Your task to perform on an android device: install app "Microsoft Excel" Image 0: 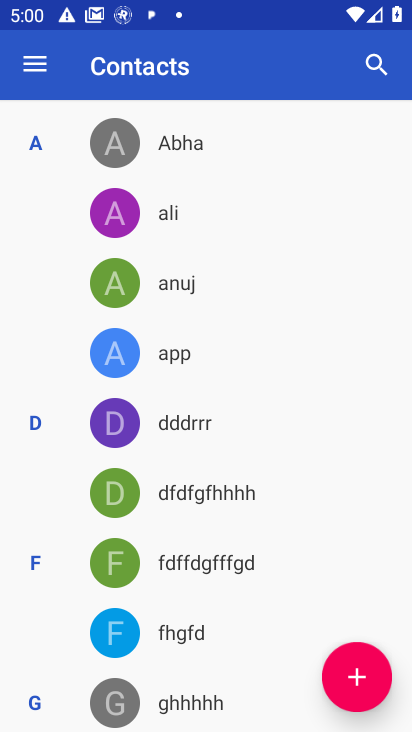
Step 0: press home button
Your task to perform on an android device: install app "Microsoft Excel" Image 1: 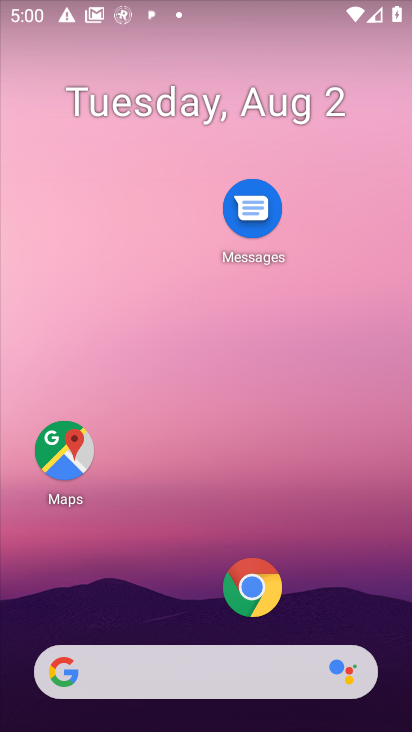
Step 1: drag from (168, 570) to (175, 199)
Your task to perform on an android device: install app "Microsoft Excel" Image 2: 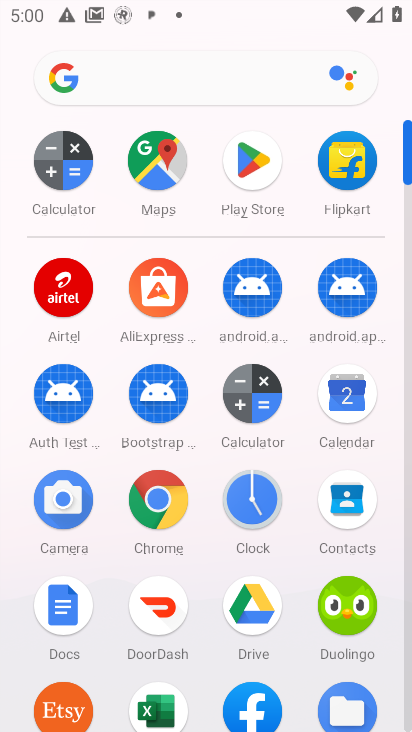
Step 2: click (243, 168)
Your task to perform on an android device: install app "Microsoft Excel" Image 3: 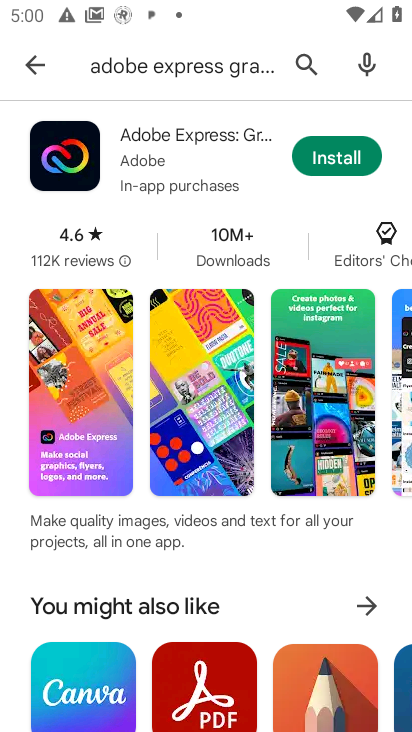
Step 3: click (308, 60)
Your task to perform on an android device: install app "Microsoft Excel" Image 4: 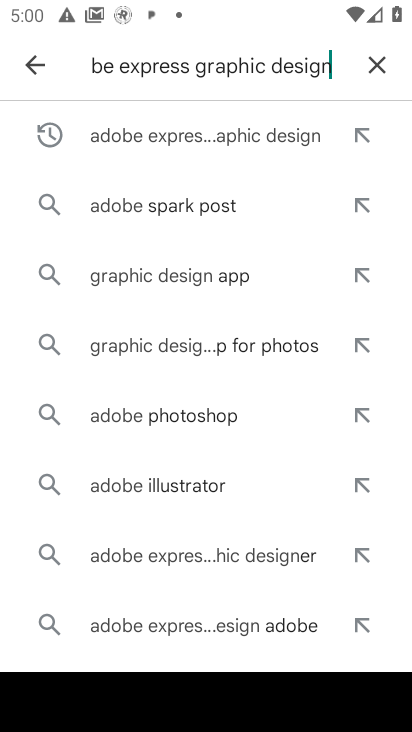
Step 4: click (363, 51)
Your task to perform on an android device: install app "Microsoft Excel" Image 5: 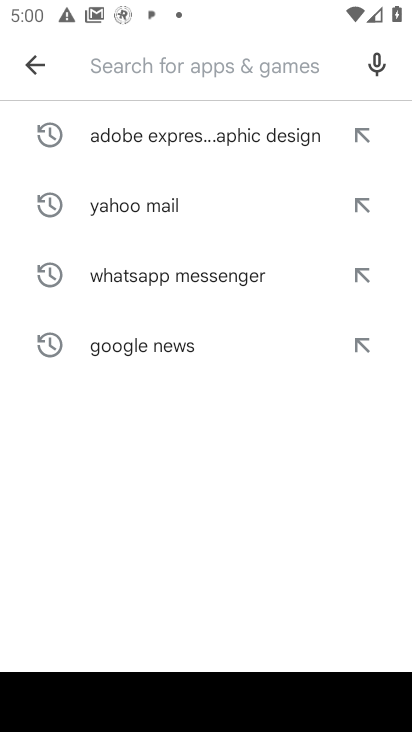
Step 5: type "Microsoft Excel"
Your task to perform on an android device: install app "Microsoft Excel" Image 6: 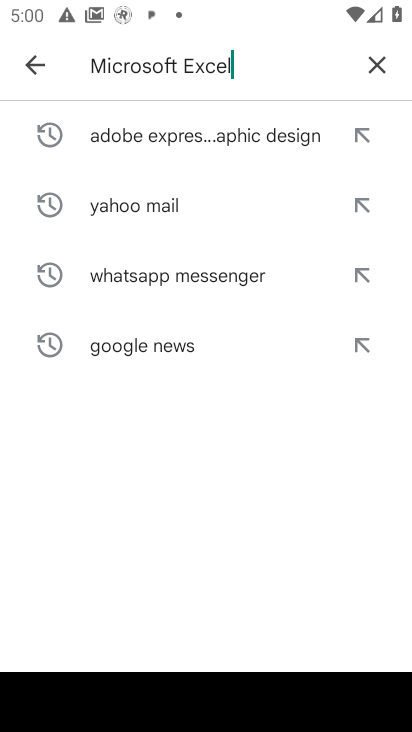
Step 6: type ""
Your task to perform on an android device: install app "Microsoft Excel" Image 7: 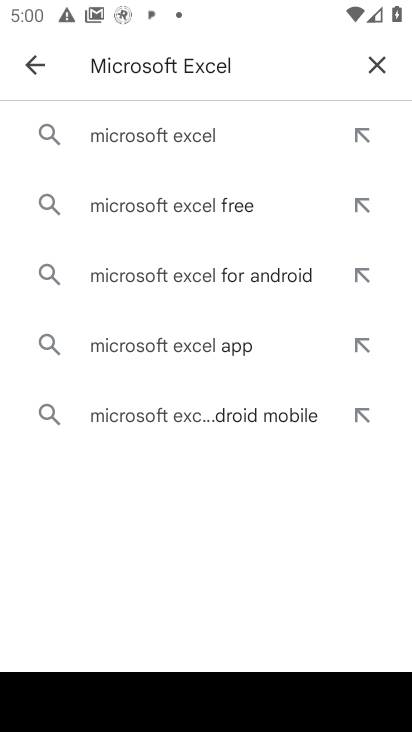
Step 7: click (220, 126)
Your task to perform on an android device: install app "Microsoft Excel" Image 8: 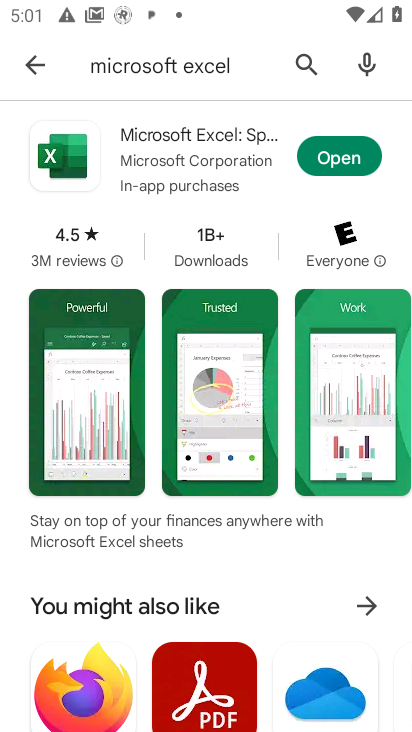
Step 8: task complete